Your task to perform on an android device: clear history in the chrome app Image 0: 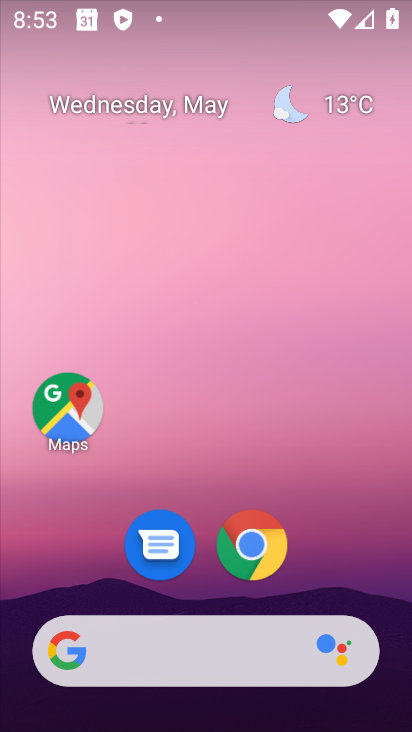
Step 0: drag from (318, 446) to (214, 37)
Your task to perform on an android device: clear history in the chrome app Image 1: 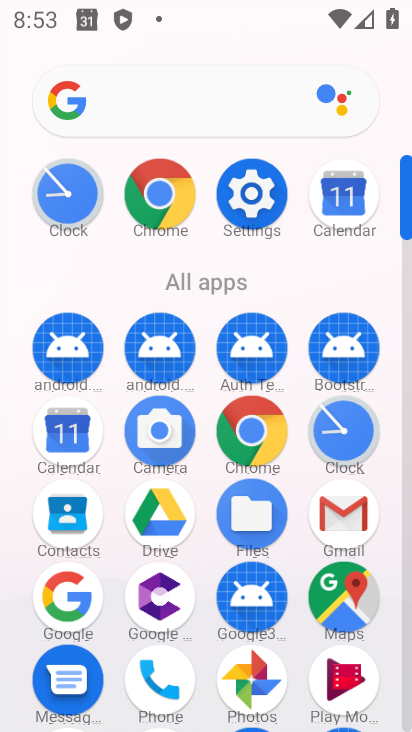
Step 1: drag from (13, 557) to (7, 230)
Your task to perform on an android device: clear history in the chrome app Image 2: 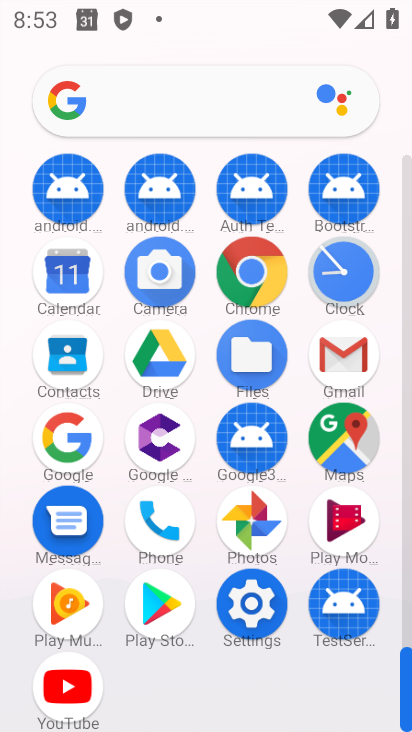
Step 2: click (251, 268)
Your task to perform on an android device: clear history in the chrome app Image 3: 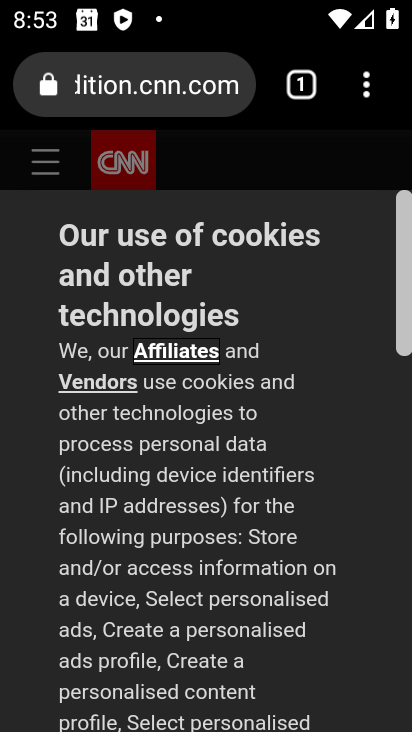
Step 3: drag from (373, 87) to (119, 480)
Your task to perform on an android device: clear history in the chrome app Image 4: 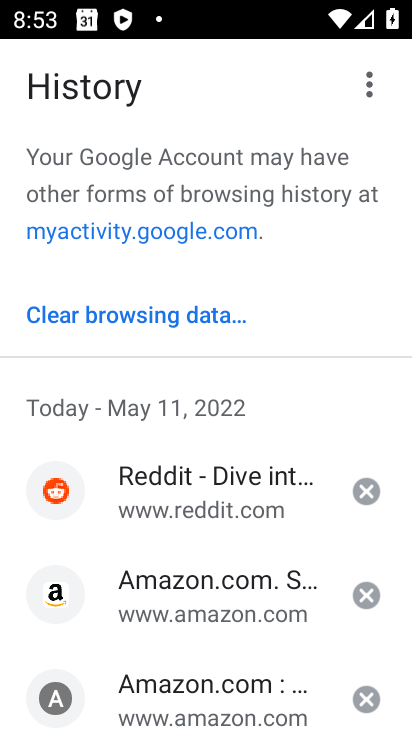
Step 4: click (134, 313)
Your task to perform on an android device: clear history in the chrome app Image 5: 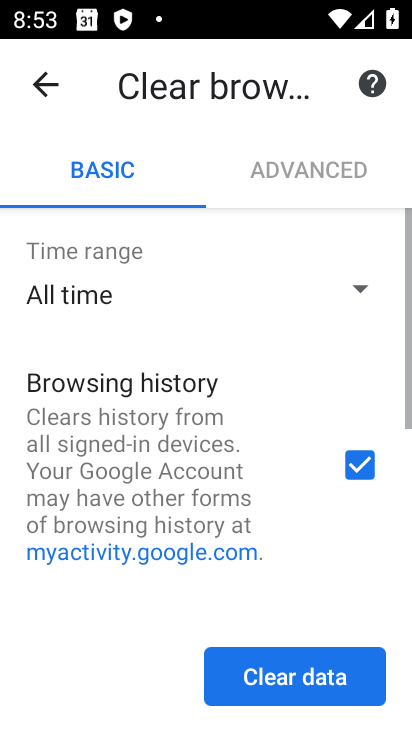
Step 5: click (277, 671)
Your task to perform on an android device: clear history in the chrome app Image 6: 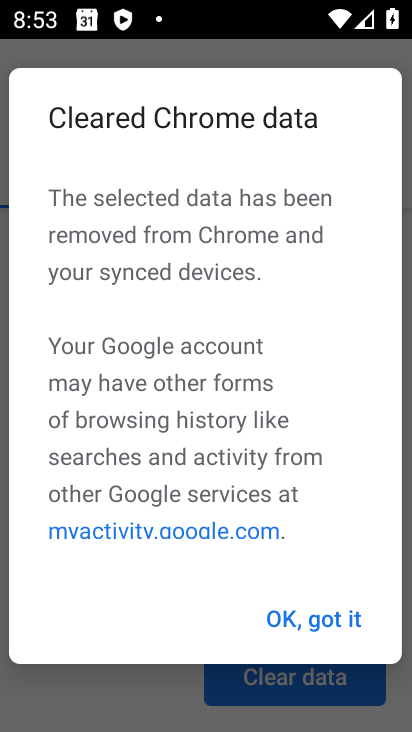
Step 6: click (308, 628)
Your task to perform on an android device: clear history in the chrome app Image 7: 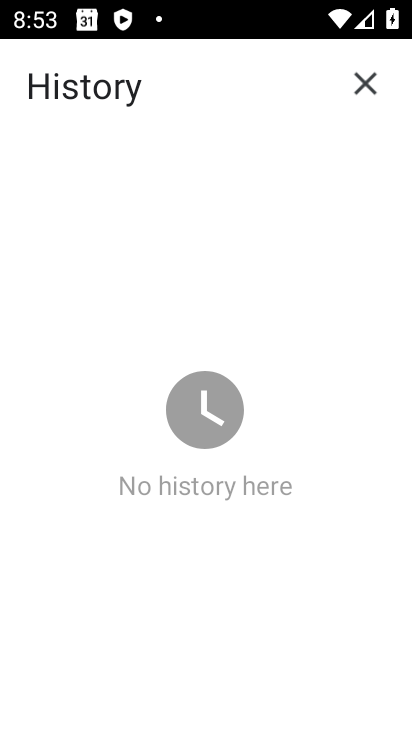
Step 7: task complete